Your task to perform on an android device: Open Amazon Image 0: 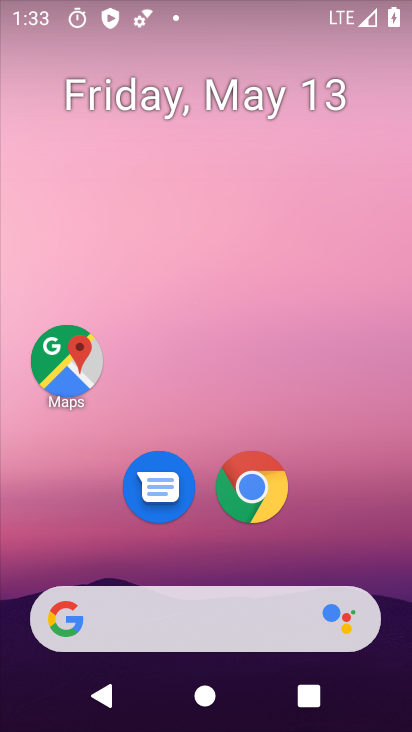
Step 0: drag from (379, 535) to (368, 149)
Your task to perform on an android device: Open Amazon Image 1: 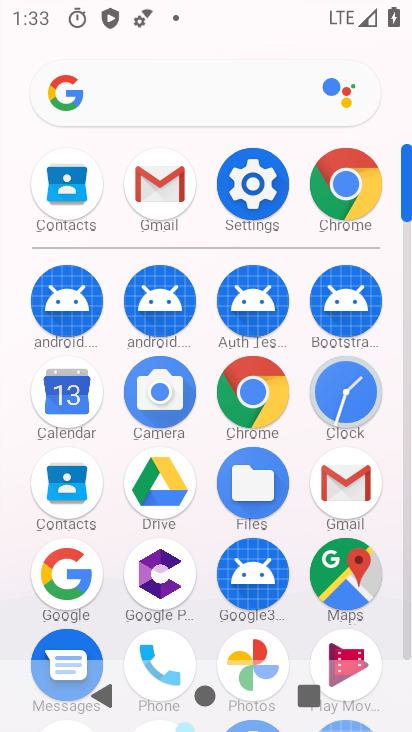
Step 1: click (247, 397)
Your task to perform on an android device: Open Amazon Image 2: 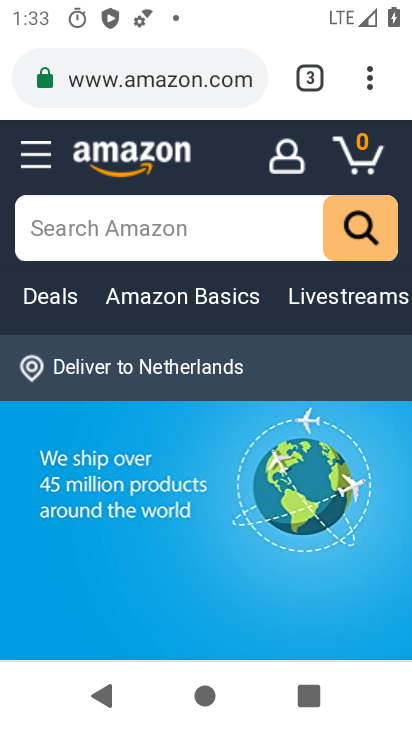
Step 2: task complete